Your task to perform on an android device: toggle javascript in the chrome app Image 0: 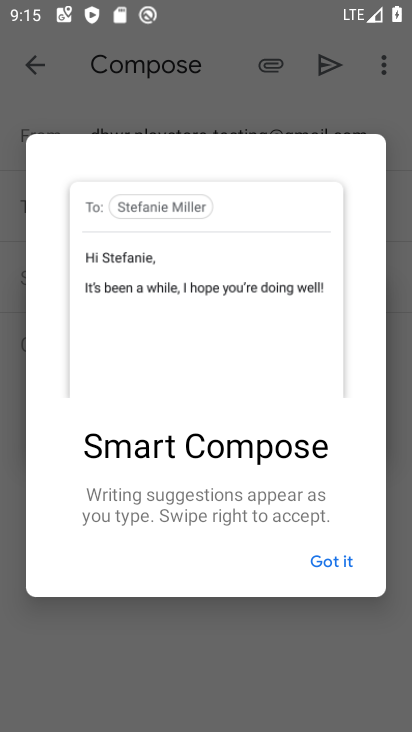
Step 0: press home button
Your task to perform on an android device: toggle javascript in the chrome app Image 1: 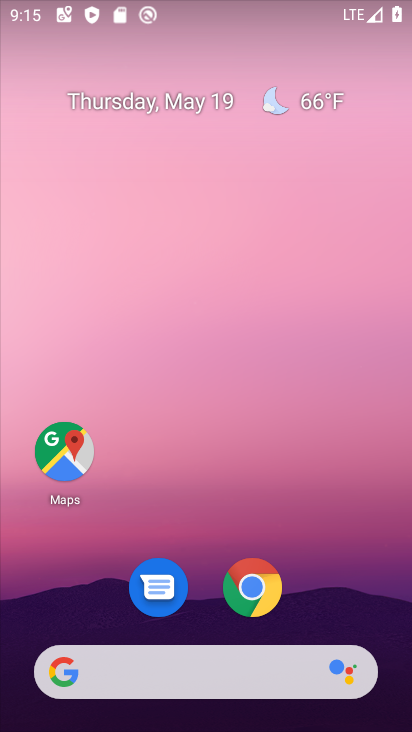
Step 1: drag from (282, 709) to (189, 160)
Your task to perform on an android device: toggle javascript in the chrome app Image 2: 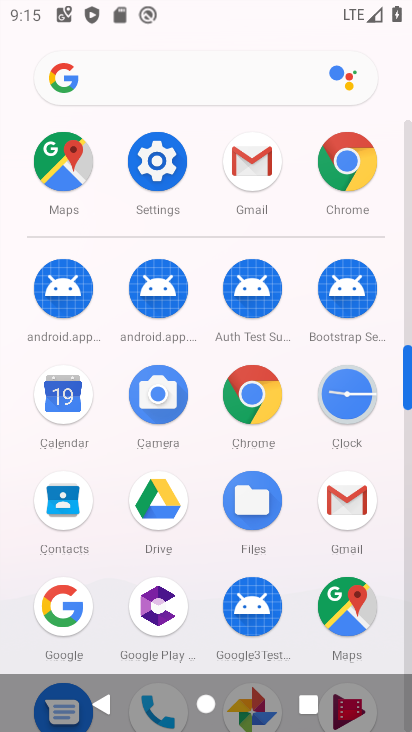
Step 2: click (339, 181)
Your task to perform on an android device: toggle javascript in the chrome app Image 3: 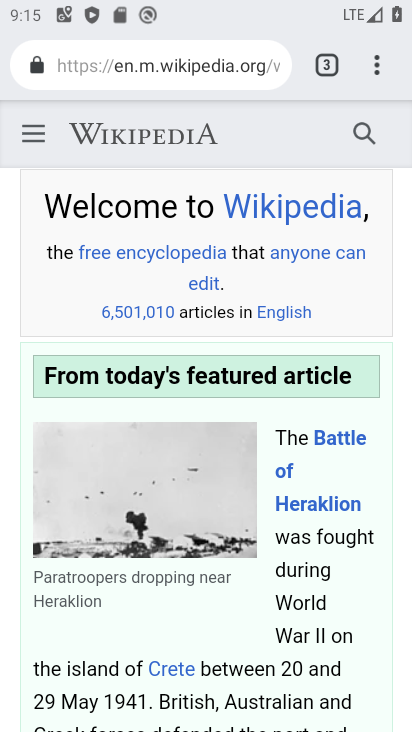
Step 3: click (371, 79)
Your task to perform on an android device: toggle javascript in the chrome app Image 4: 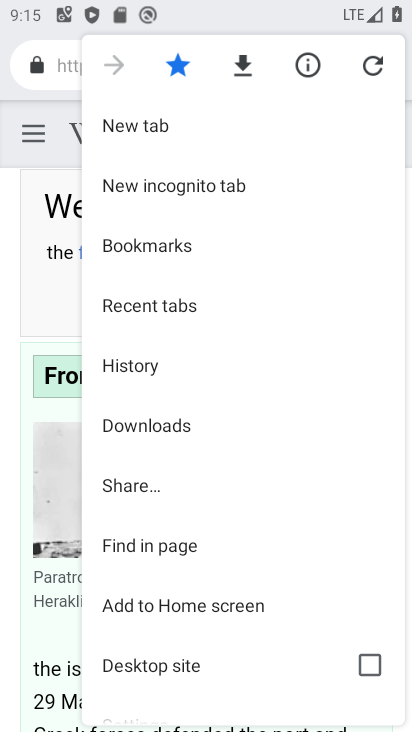
Step 4: drag from (146, 640) to (176, 513)
Your task to perform on an android device: toggle javascript in the chrome app Image 5: 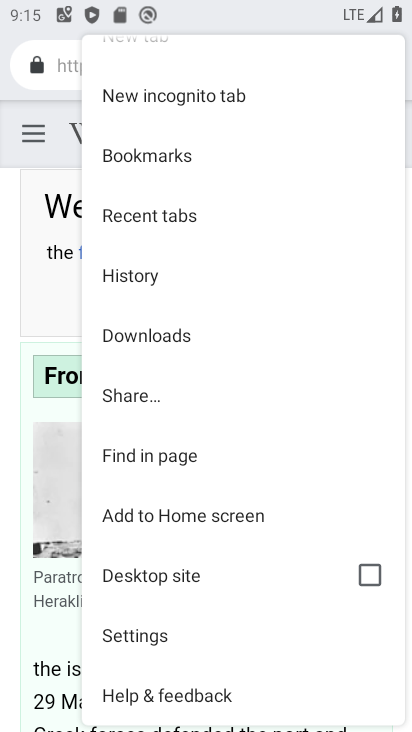
Step 5: click (167, 638)
Your task to perform on an android device: toggle javascript in the chrome app Image 6: 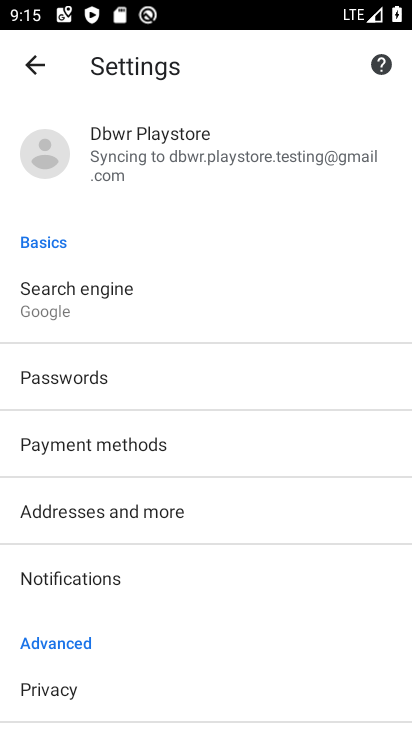
Step 6: drag from (209, 447) to (195, 407)
Your task to perform on an android device: toggle javascript in the chrome app Image 7: 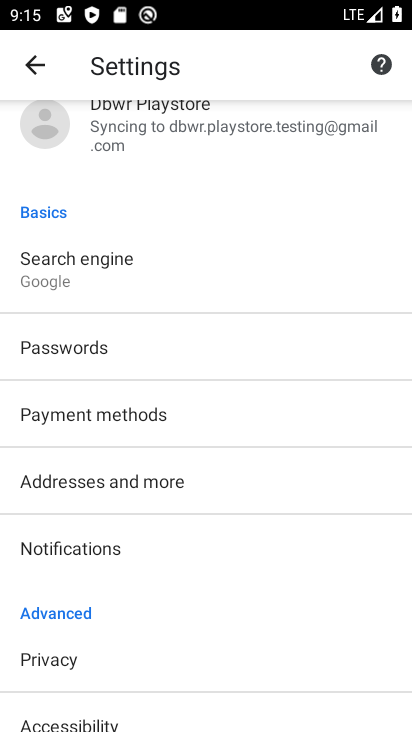
Step 7: drag from (147, 566) to (123, 377)
Your task to perform on an android device: toggle javascript in the chrome app Image 8: 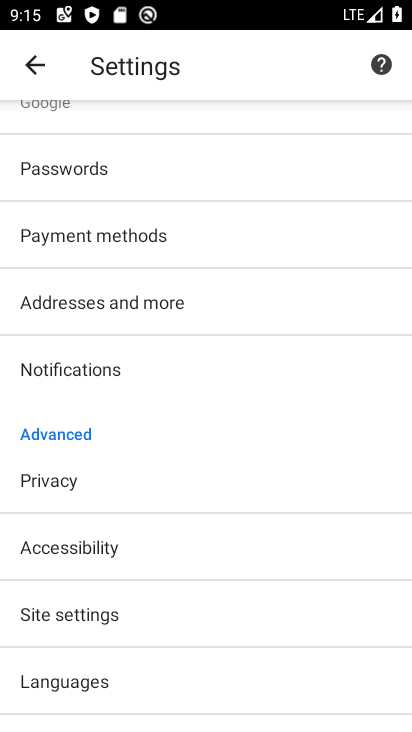
Step 8: click (111, 615)
Your task to perform on an android device: toggle javascript in the chrome app Image 9: 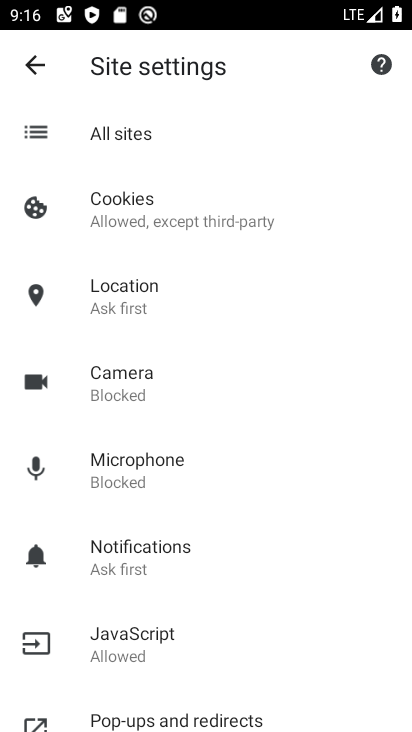
Step 9: click (176, 630)
Your task to perform on an android device: toggle javascript in the chrome app Image 10: 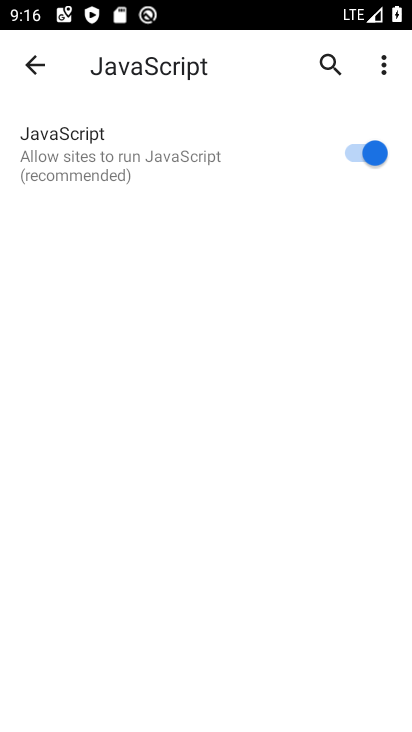
Step 10: task complete